Your task to perform on an android device: toggle show notifications on the lock screen Image 0: 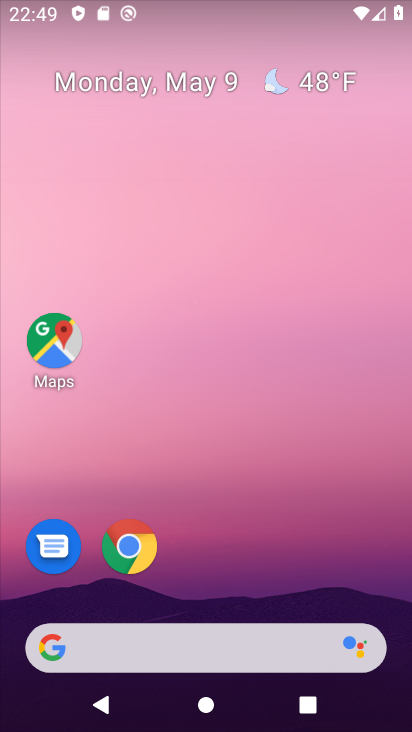
Step 0: drag from (218, 721) to (205, 18)
Your task to perform on an android device: toggle show notifications on the lock screen Image 1: 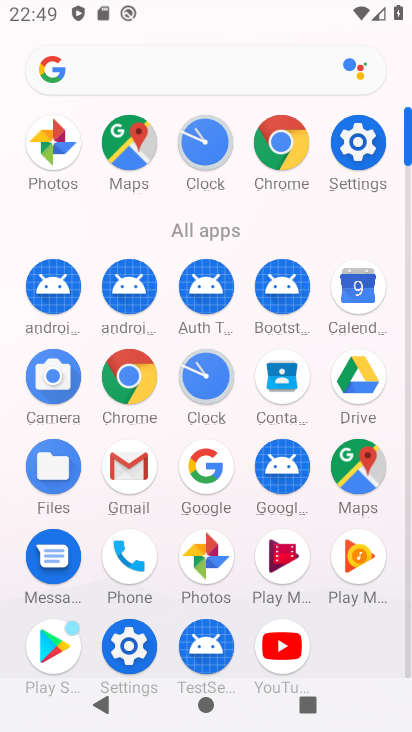
Step 1: click (354, 142)
Your task to perform on an android device: toggle show notifications on the lock screen Image 2: 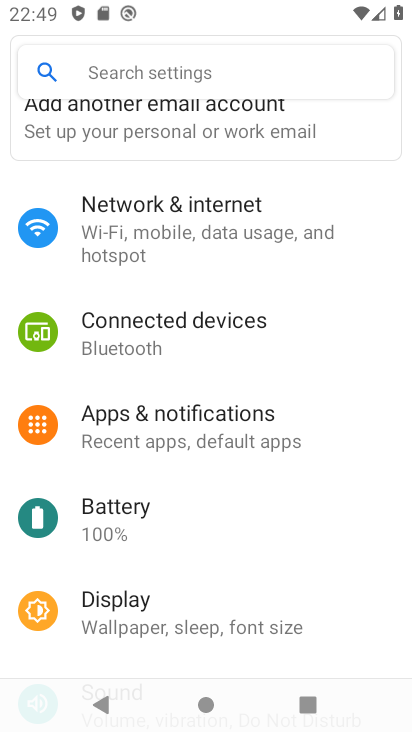
Step 2: click (171, 421)
Your task to perform on an android device: toggle show notifications on the lock screen Image 3: 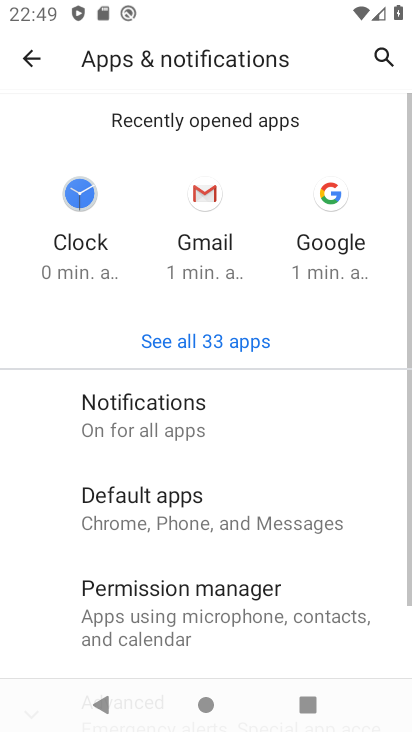
Step 3: click (152, 422)
Your task to perform on an android device: toggle show notifications on the lock screen Image 4: 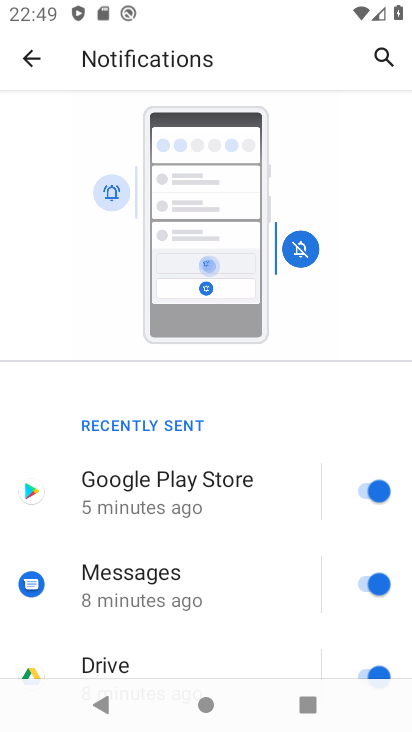
Step 4: drag from (225, 651) to (212, 331)
Your task to perform on an android device: toggle show notifications on the lock screen Image 5: 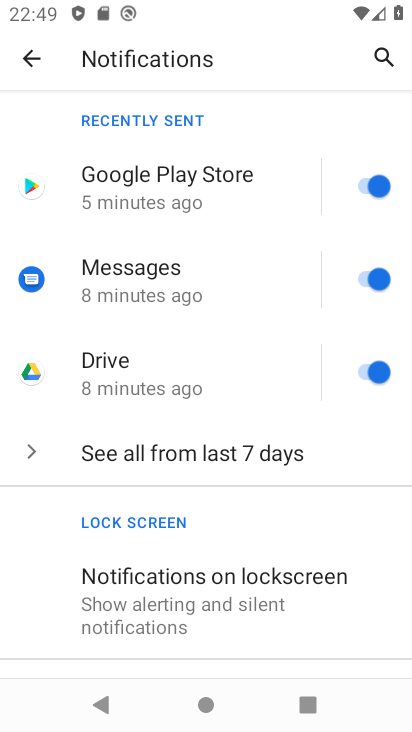
Step 5: drag from (244, 651) to (222, 462)
Your task to perform on an android device: toggle show notifications on the lock screen Image 6: 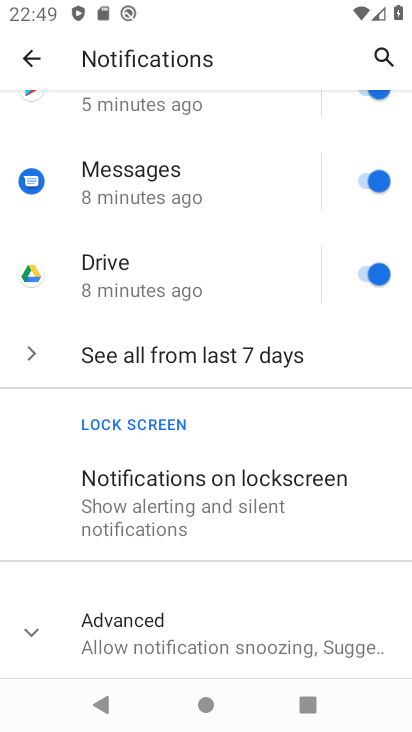
Step 6: click (225, 497)
Your task to perform on an android device: toggle show notifications on the lock screen Image 7: 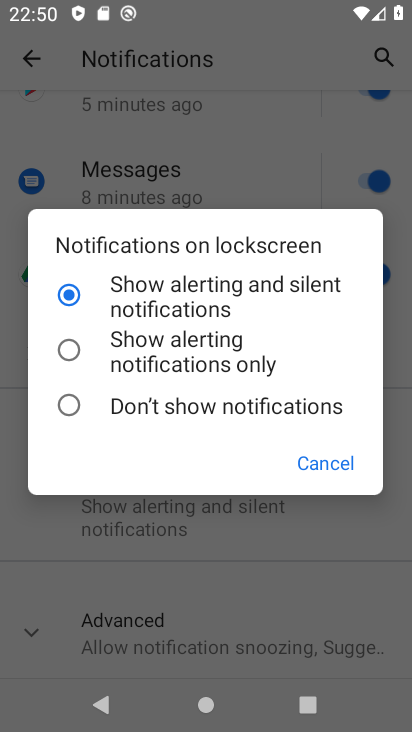
Step 7: click (71, 350)
Your task to perform on an android device: toggle show notifications on the lock screen Image 8: 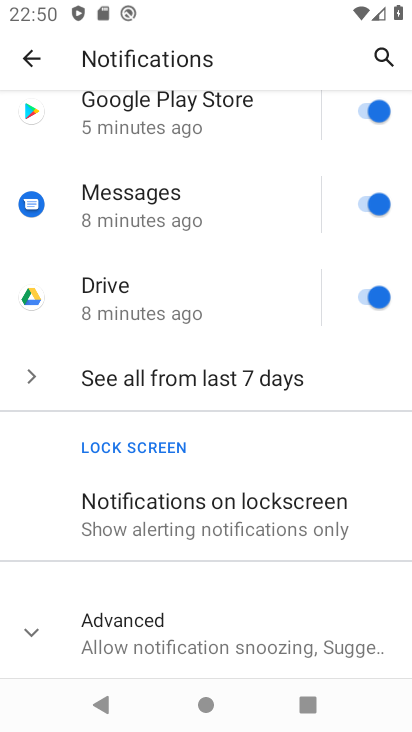
Step 8: task complete